Your task to perform on an android device: Do I have any events tomorrow? Image 0: 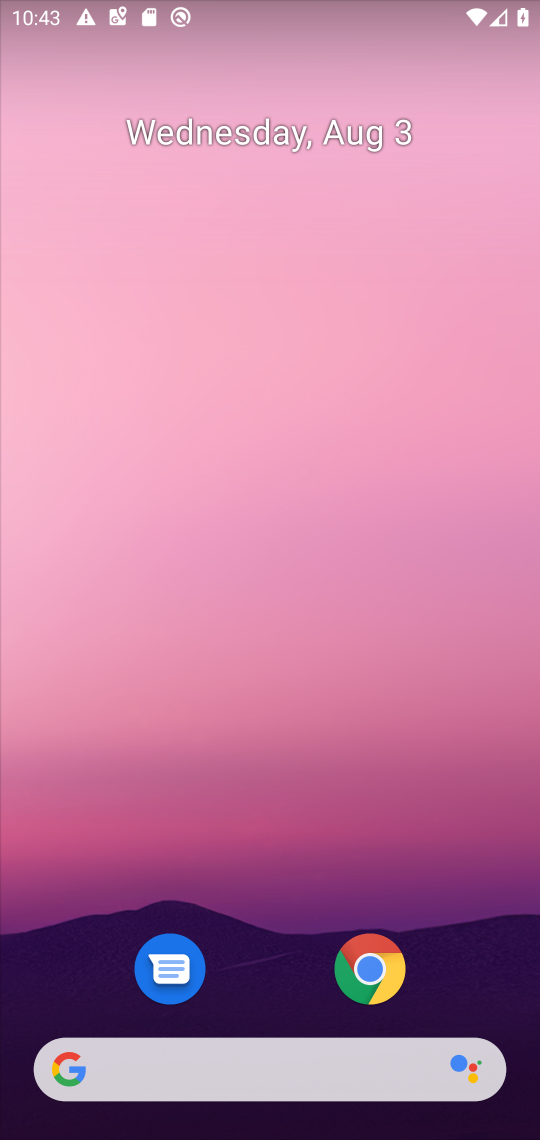
Step 0: drag from (278, 1009) to (184, 43)
Your task to perform on an android device: Do I have any events tomorrow? Image 1: 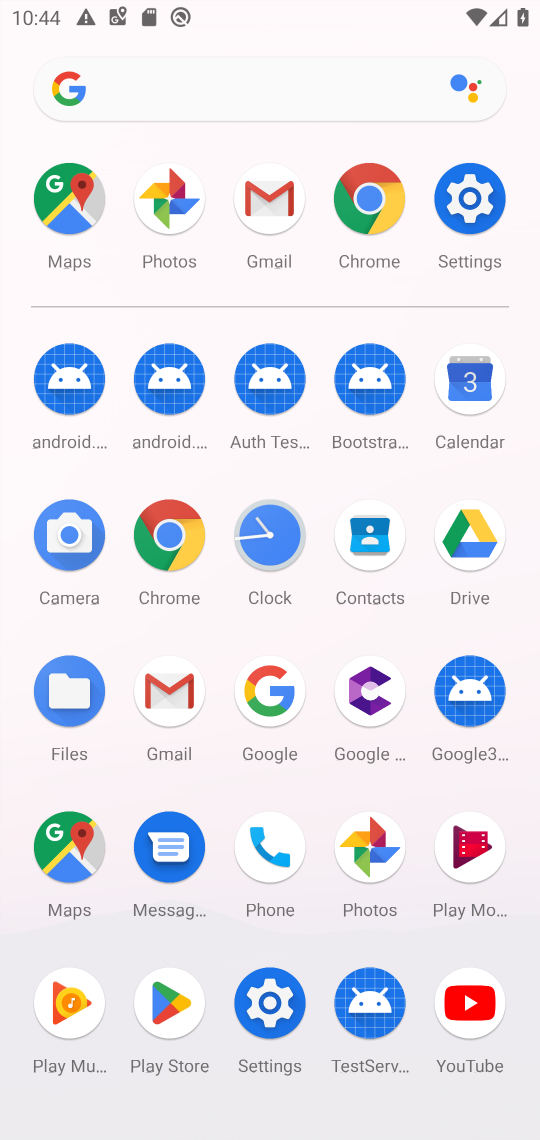
Step 1: click (480, 390)
Your task to perform on an android device: Do I have any events tomorrow? Image 2: 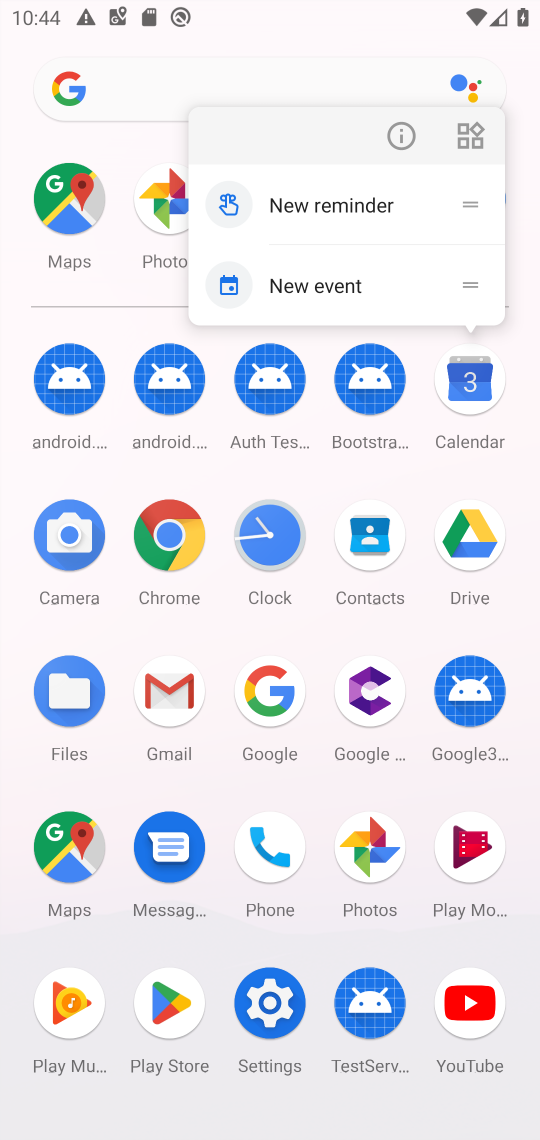
Step 2: click (476, 394)
Your task to perform on an android device: Do I have any events tomorrow? Image 3: 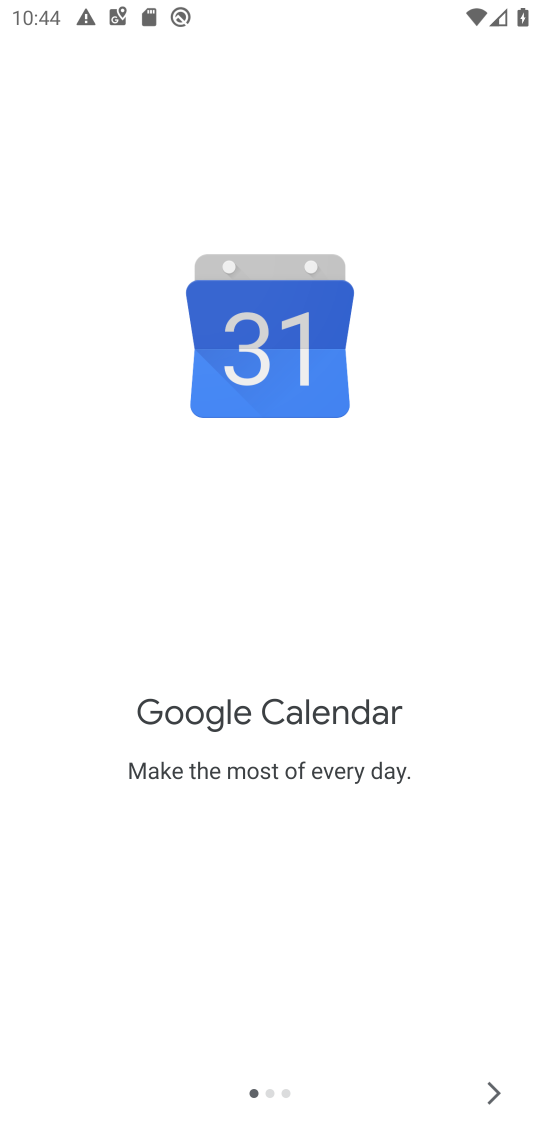
Step 3: click (460, 1102)
Your task to perform on an android device: Do I have any events tomorrow? Image 4: 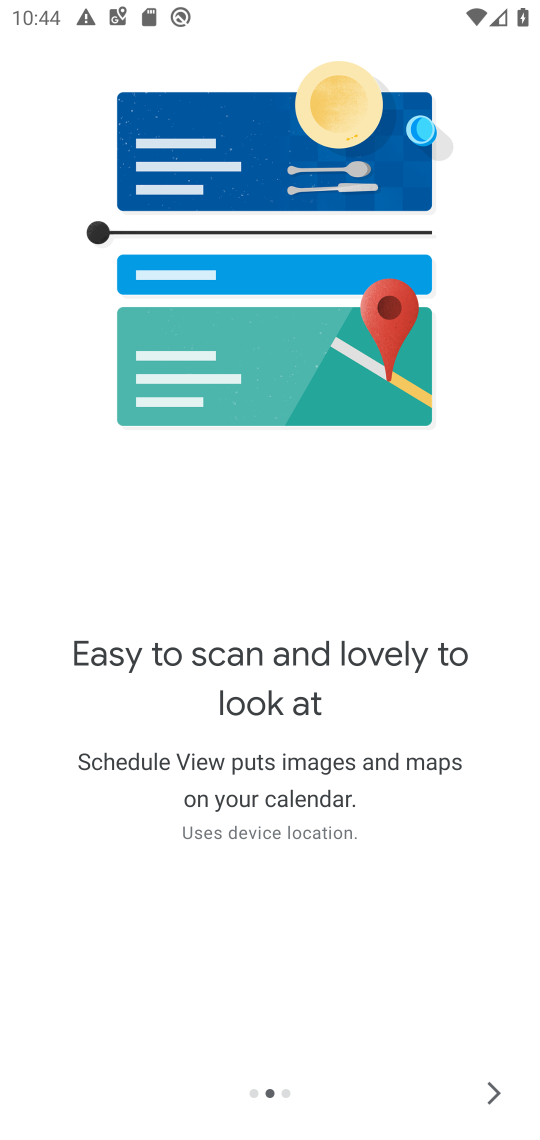
Step 4: click (510, 1089)
Your task to perform on an android device: Do I have any events tomorrow? Image 5: 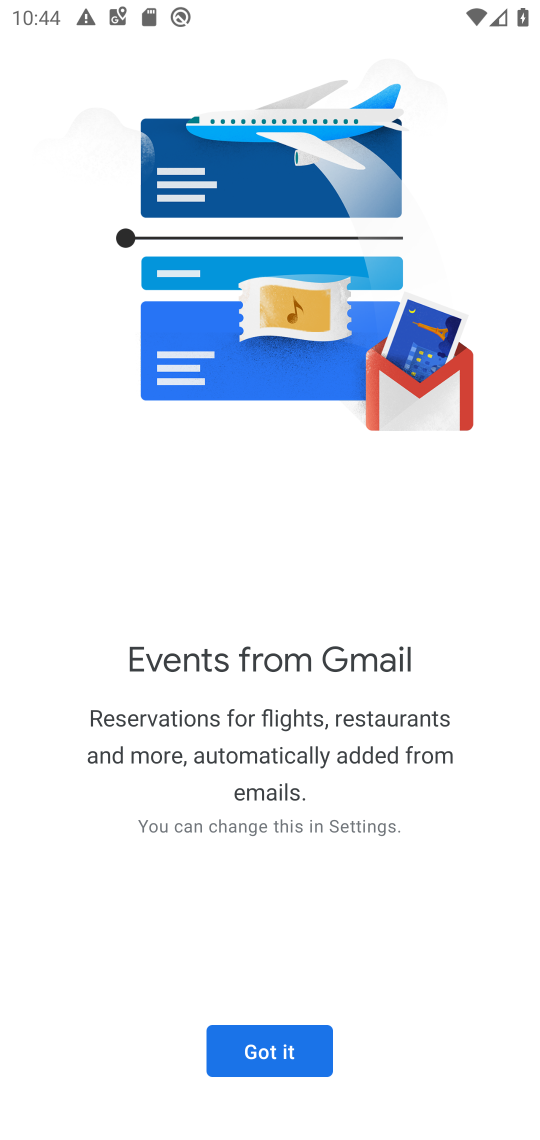
Step 5: click (291, 1061)
Your task to perform on an android device: Do I have any events tomorrow? Image 6: 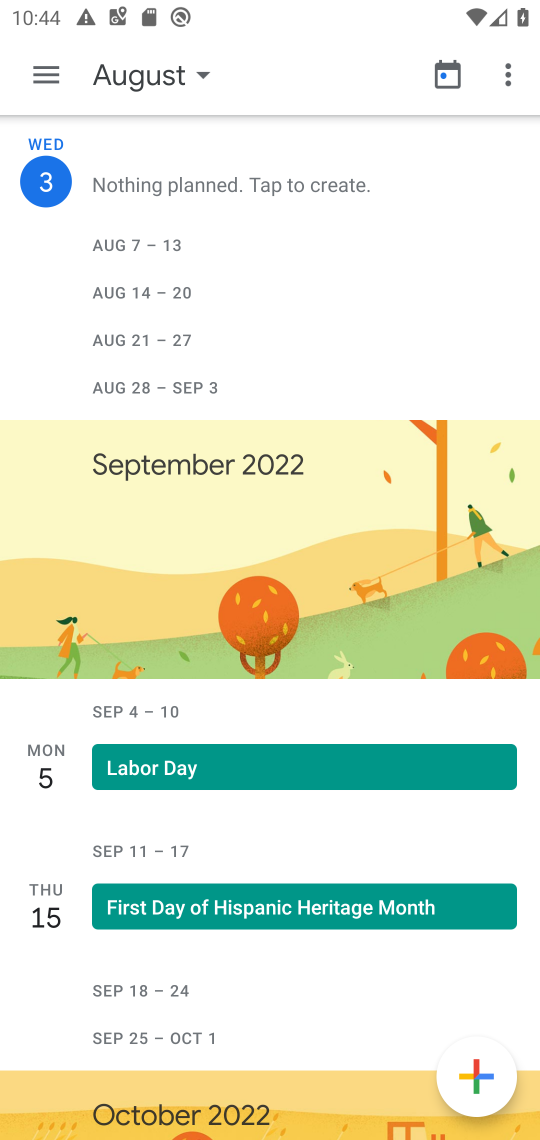
Step 6: click (442, 89)
Your task to perform on an android device: Do I have any events tomorrow? Image 7: 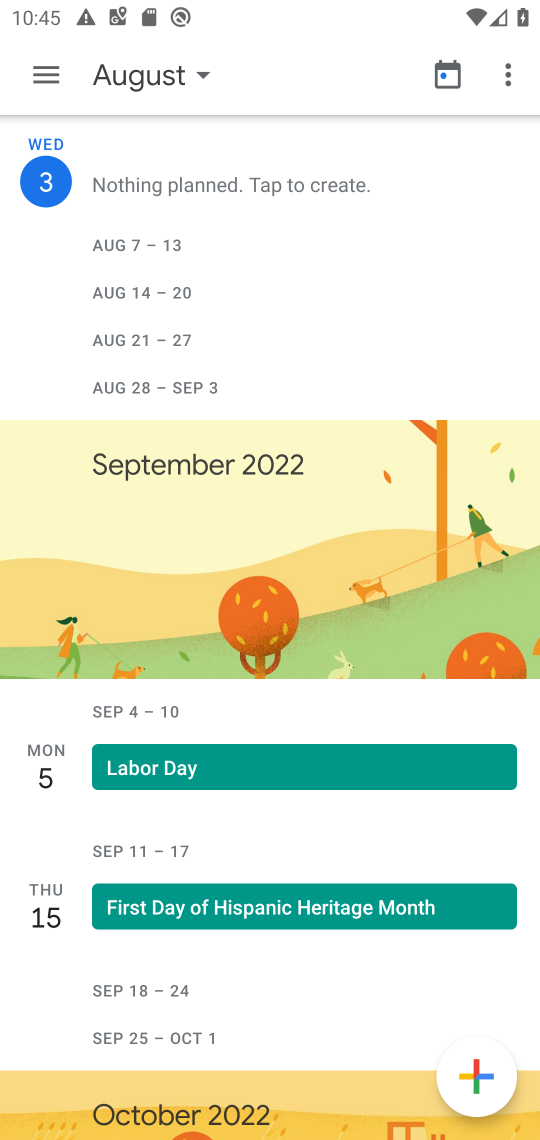
Step 7: click (438, 88)
Your task to perform on an android device: Do I have any events tomorrow? Image 8: 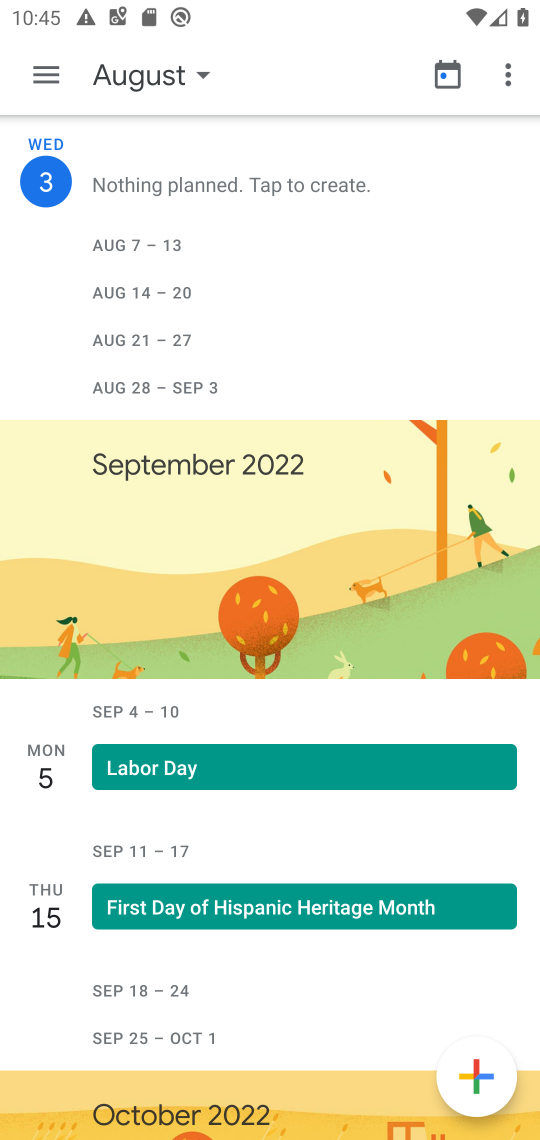
Step 8: click (46, 61)
Your task to perform on an android device: Do I have any events tomorrow? Image 9: 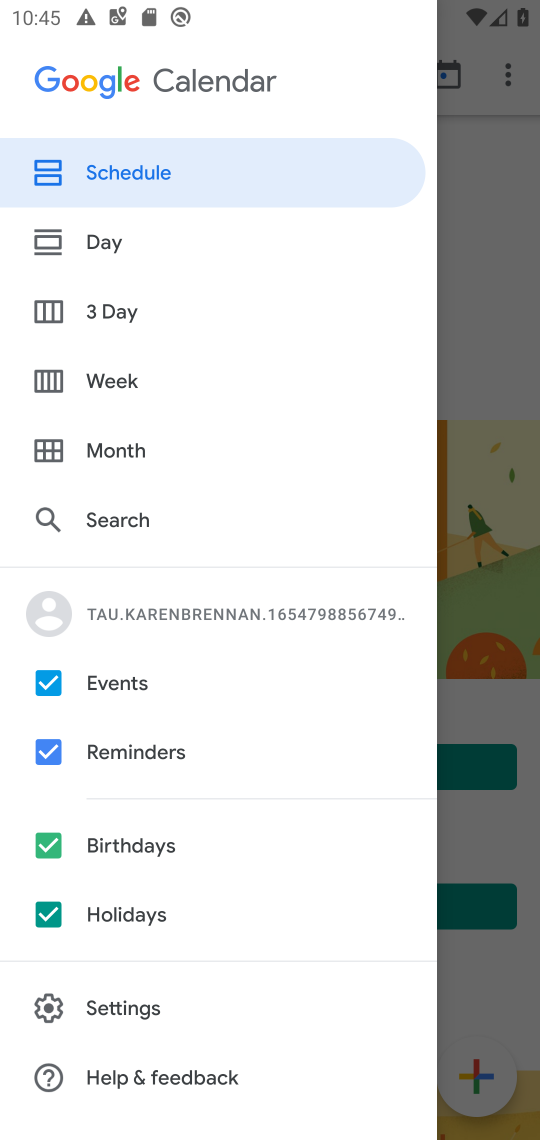
Step 9: click (143, 379)
Your task to perform on an android device: Do I have any events tomorrow? Image 10: 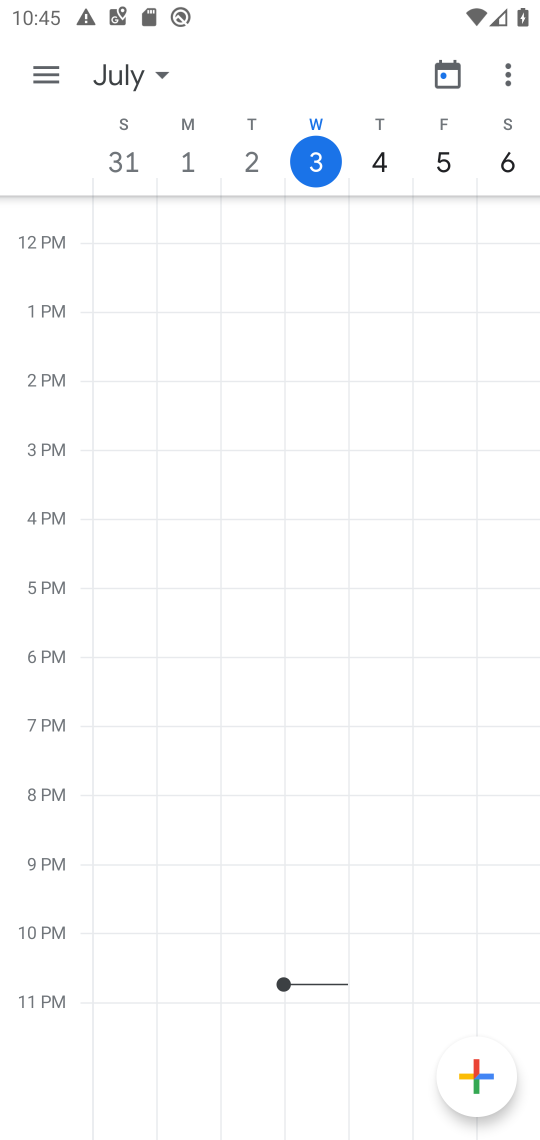
Step 10: click (378, 170)
Your task to perform on an android device: Do I have any events tomorrow? Image 11: 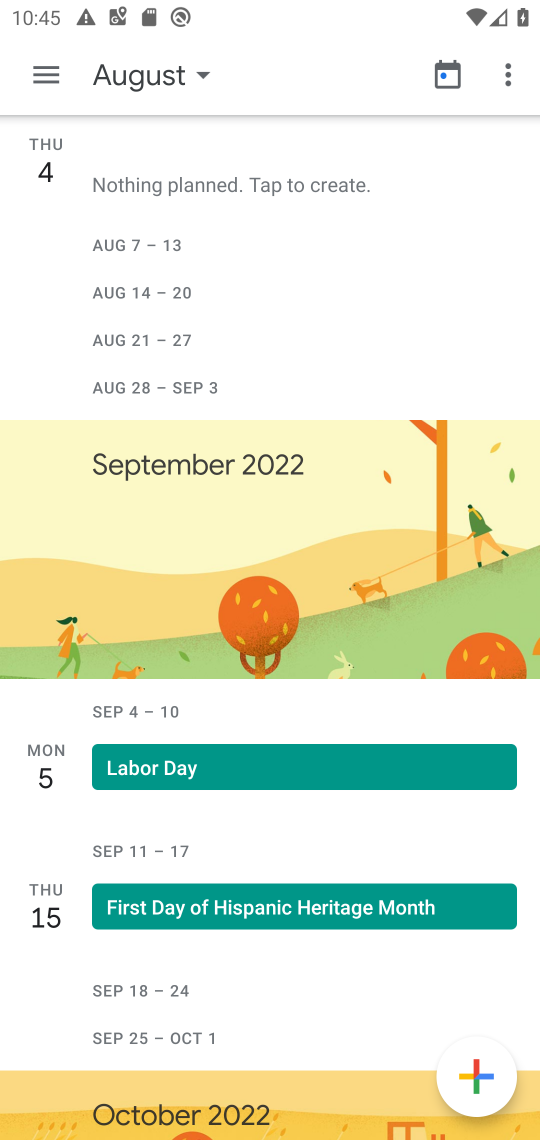
Step 11: task complete